Your task to perform on an android device: check battery use Image 0: 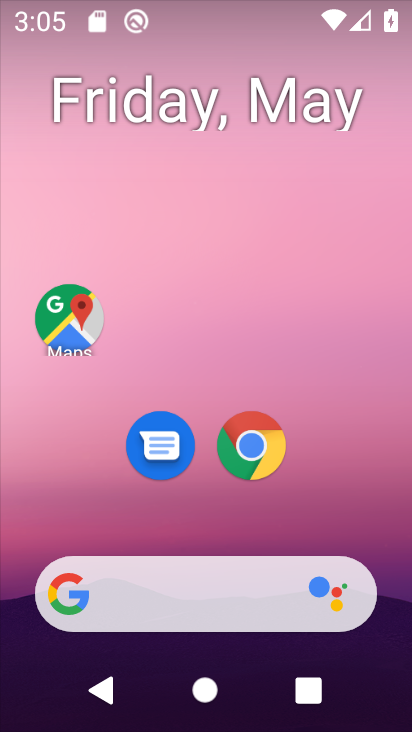
Step 0: drag from (186, 503) to (207, 150)
Your task to perform on an android device: check battery use Image 1: 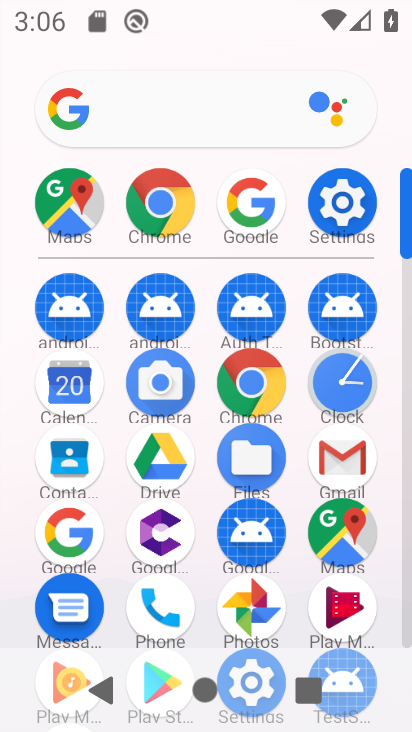
Step 1: click (330, 211)
Your task to perform on an android device: check battery use Image 2: 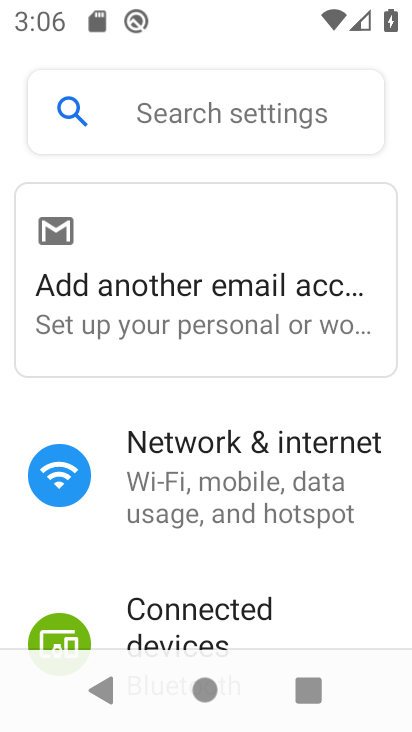
Step 2: drag from (243, 503) to (275, 257)
Your task to perform on an android device: check battery use Image 3: 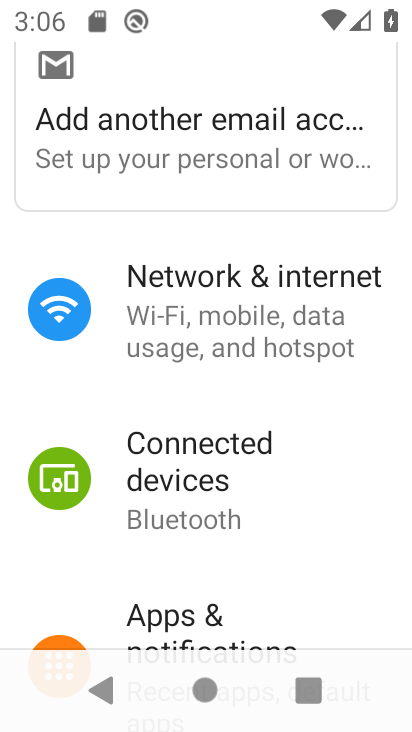
Step 3: drag from (225, 506) to (277, 139)
Your task to perform on an android device: check battery use Image 4: 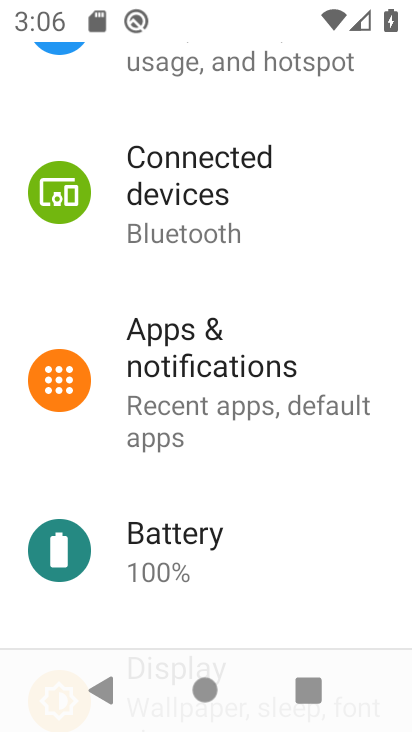
Step 4: drag from (272, 412) to (314, 141)
Your task to perform on an android device: check battery use Image 5: 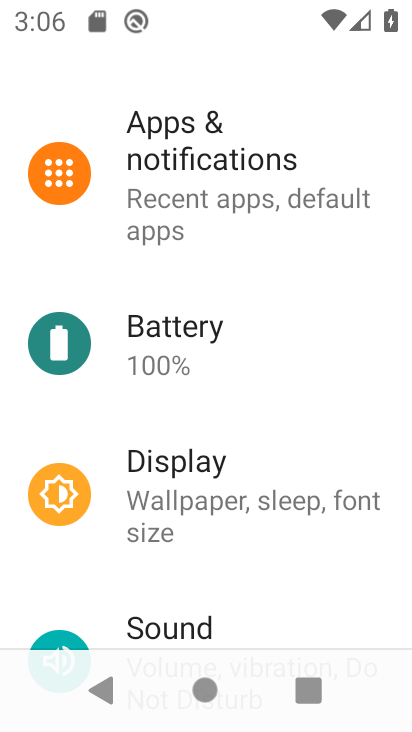
Step 5: drag from (201, 609) to (287, 203)
Your task to perform on an android device: check battery use Image 6: 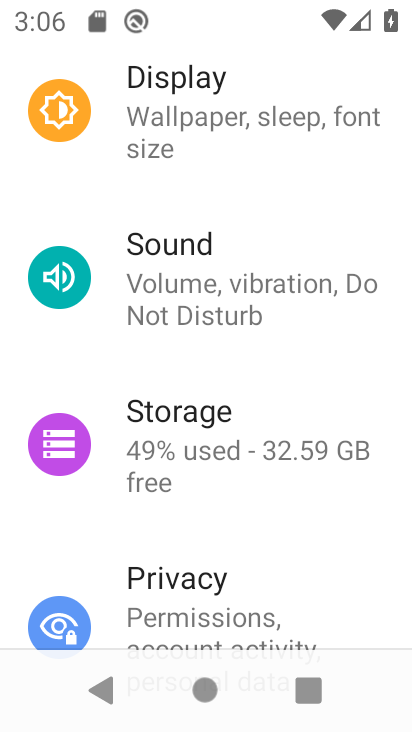
Step 6: drag from (212, 630) to (301, 202)
Your task to perform on an android device: check battery use Image 7: 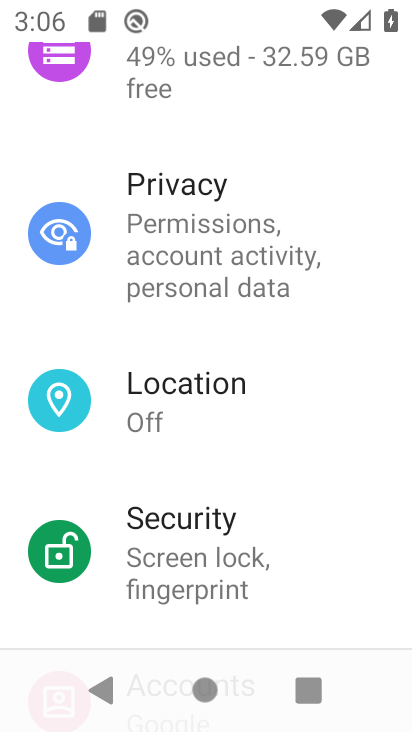
Step 7: drag from (228, 191) to (313, 709)
Your task to perform on an android device: check battery use Image 8: 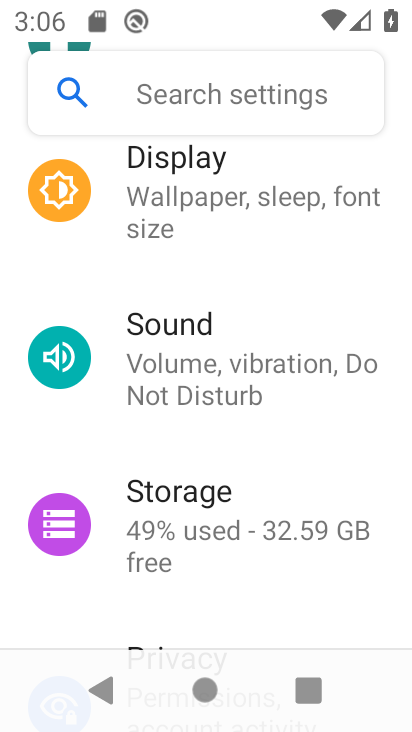
Step 8: drag from (240, 478) to (292, 719)
Your task to perform on an android device: check battery use Image 9: 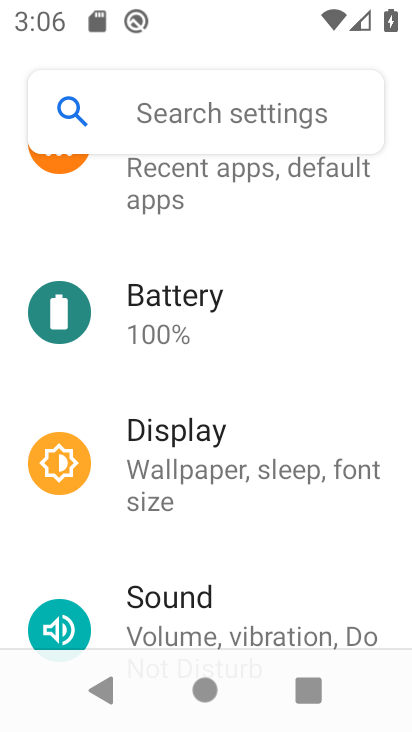
Step 9: click (195, 322)
Your task to perform on an android device: check battery use Image 10: 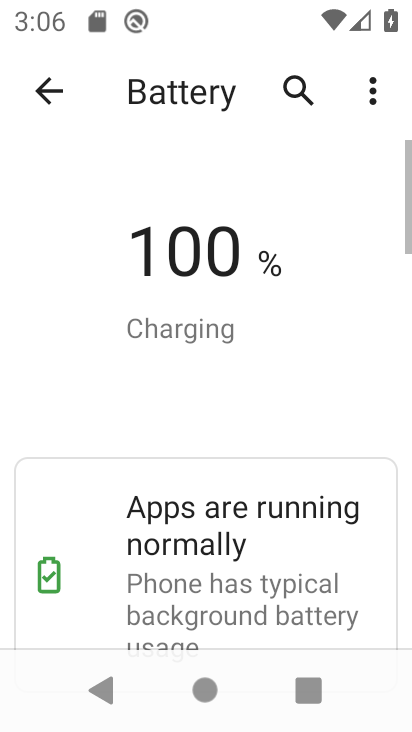
Step 10: drag from (262, 412) to (337, 210)
Your task to perform on an android device: check battery use Image 11: 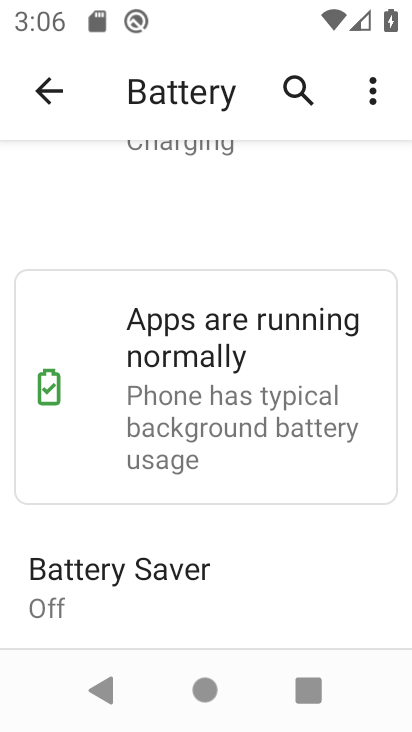
Step 11: click (369, 87)
Your task to perform on an android device: check battery use Image 12: 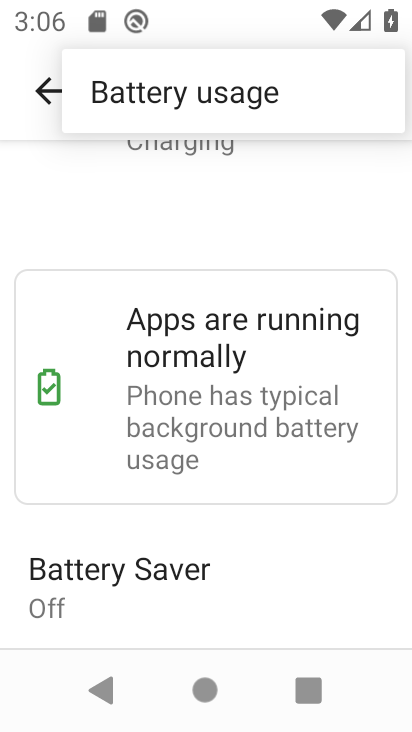
Step 12: click (261, 103)
Your task to perform on an android device: check battery use Image 13: 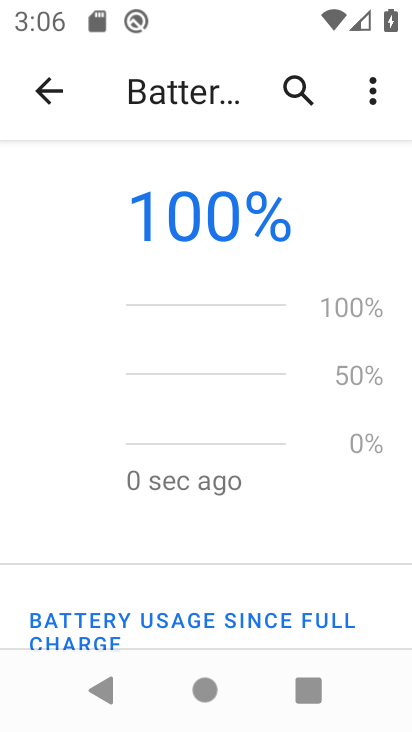
Step 13: task complete